Your task to perform on an android device: turn off location Image 0: 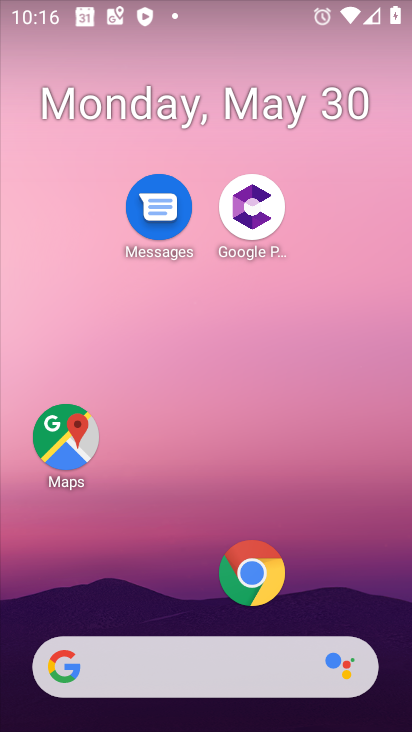
Step 0: drag from (196, 634) to (275, 87)
Your task to perform on an android device: turn off location Image 1: 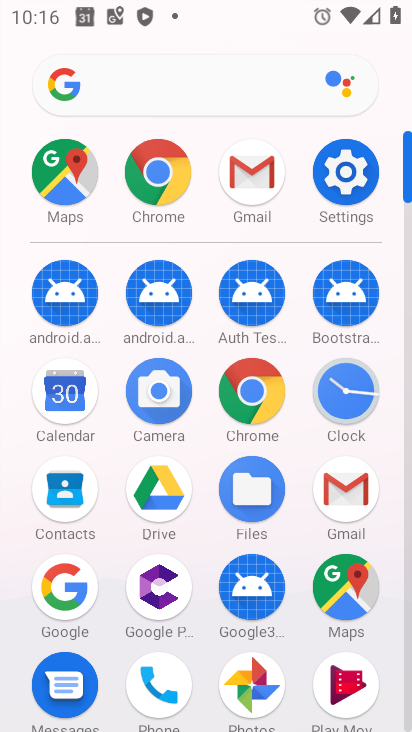
Step 1: click (348, 204)
Your task to perform on an android device: turn off location Image 2: 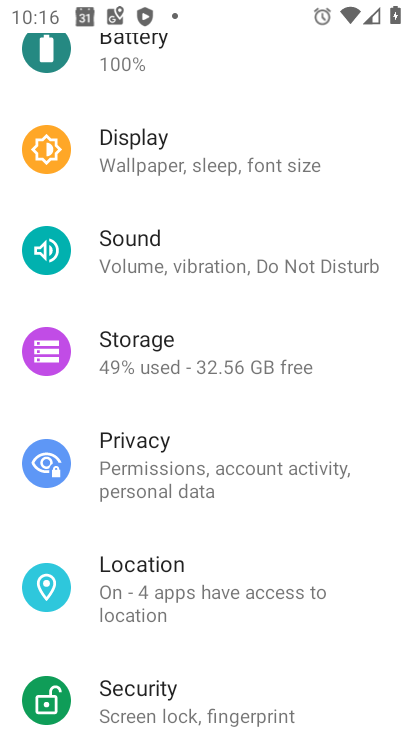
Step 2: drag from (264, 541) to (303, 319)
Your task to perform on an android device: turn off location Image 3: 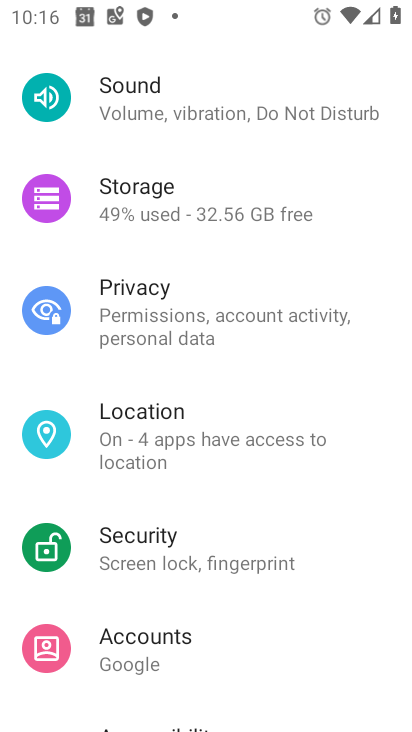
Step 3: click (242, 430)
Your task to perform on an android device: turn off location Image 4: 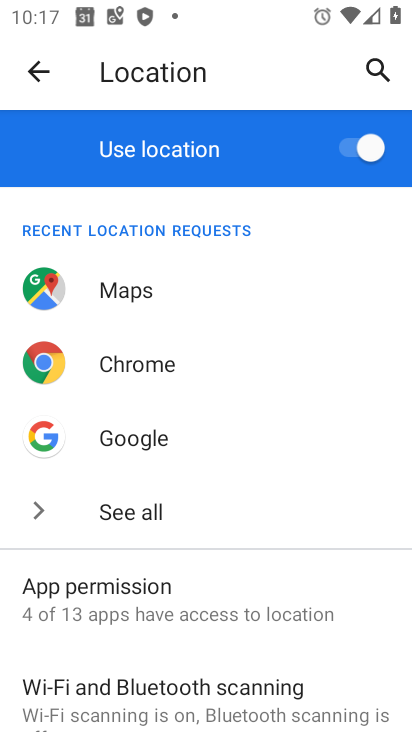
Step 4: click (344, 162)
Your task to perform on an android device: turn off location Image 5: 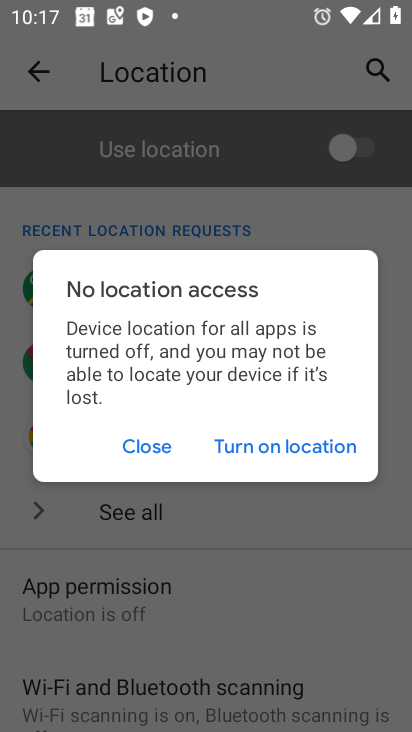
Step 5: task complete